Your task to perform on an android device: Turn on the flashlight Image 0: 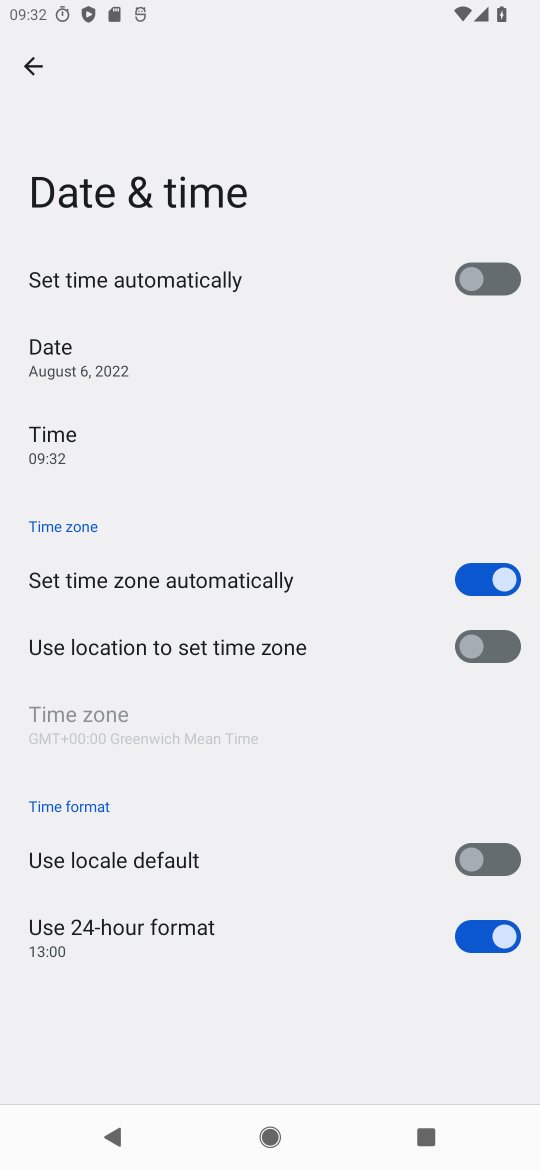
Step 0: press home button
Your task to perform on an android device: Turn on the flashlight Image 1: 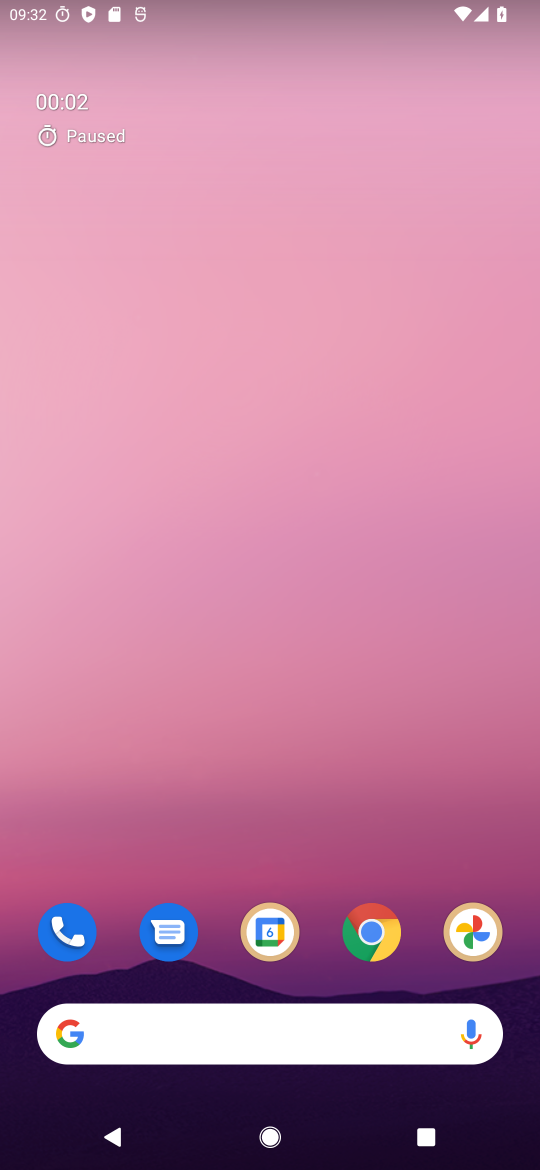
Step 1: drag from (283, 9) to (402, 632)
Your task to perform on an android device: Turn on the flashlight Image 2: 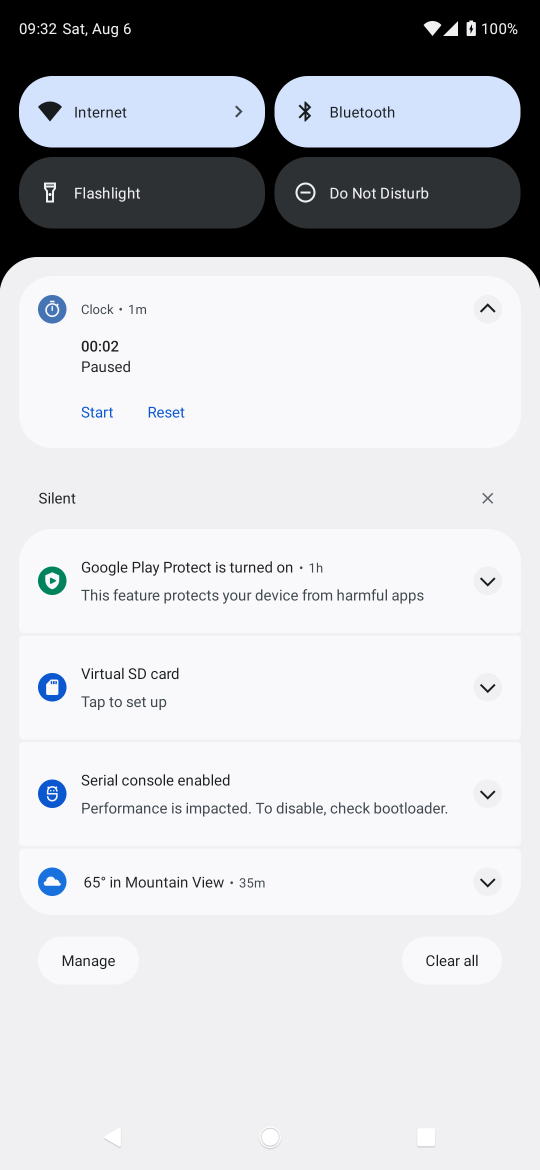
Step 2: drag from (279, 256) to (286, 758)
Your task to perform on an android device: Turn on the flashlight Image 3: 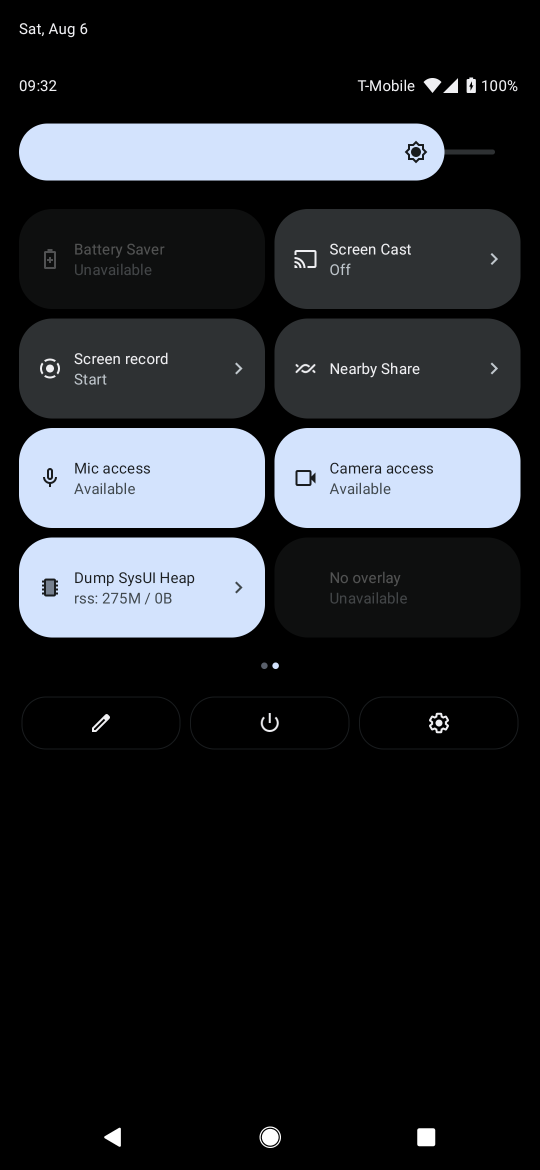
Step 3: drag from (48, 689) to (518, 728)
Your task to perform on an android device: Turn on the flashlight Image 4: 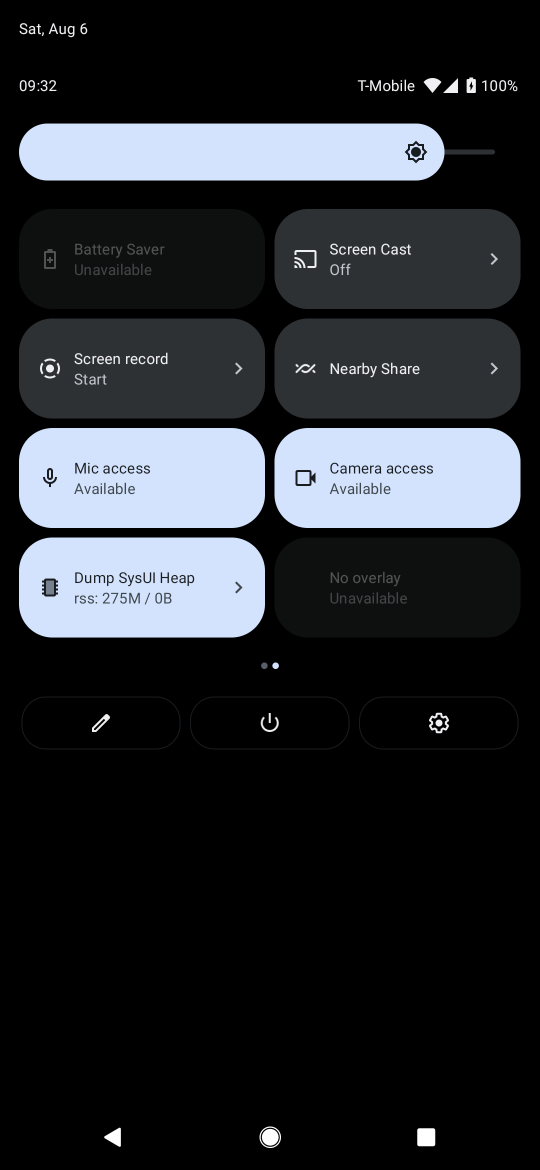
Step 4: drag from (29, 420) to (511, 433)
Your task to perform on an android device: Turn on the flashlight Image 5: 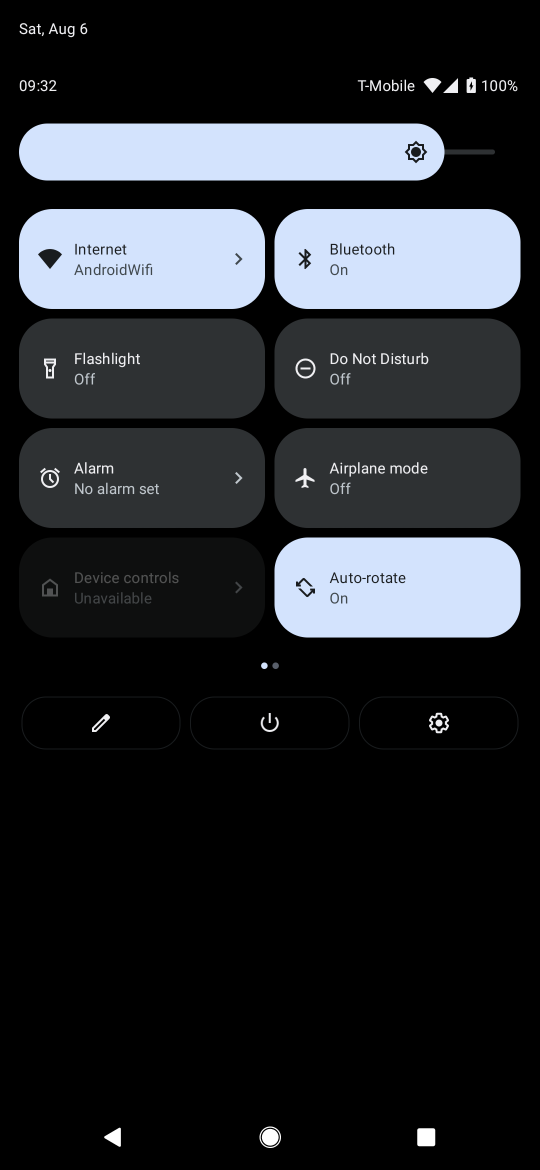
Step 5: click (101, 388)
Your task to perform on an android device: Turn on the flashlight Image 6: 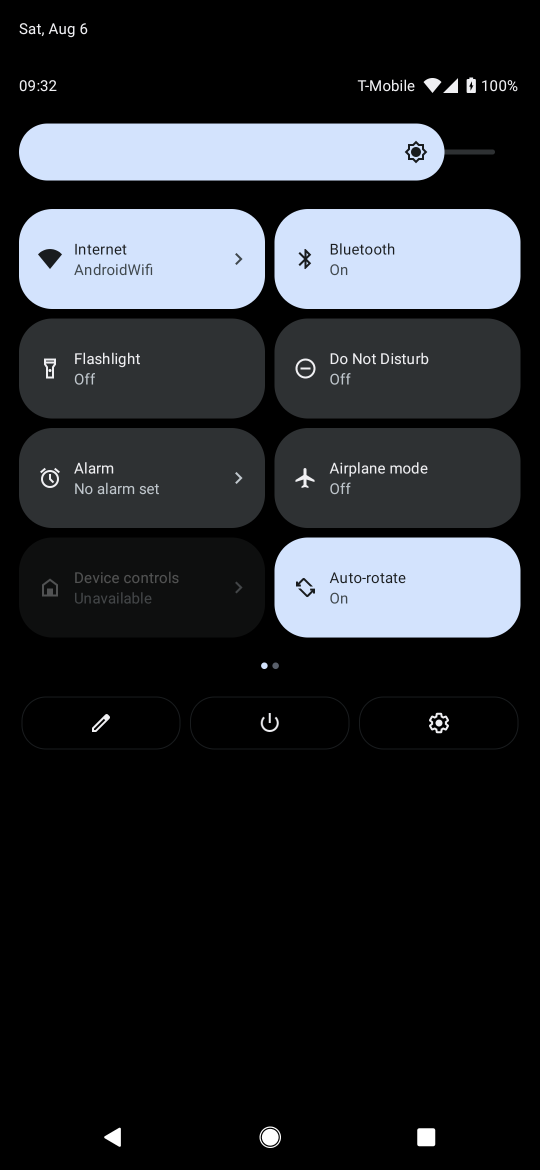
Step 6: task complete